Your task to perform on an android device: Go to Maps Image 0: 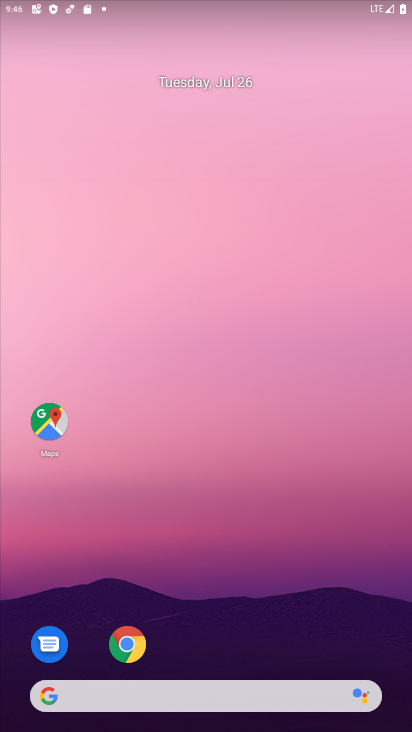
Step 0: click (50, 428)
Your task to perform on an android device: Go to Maps Image 1: 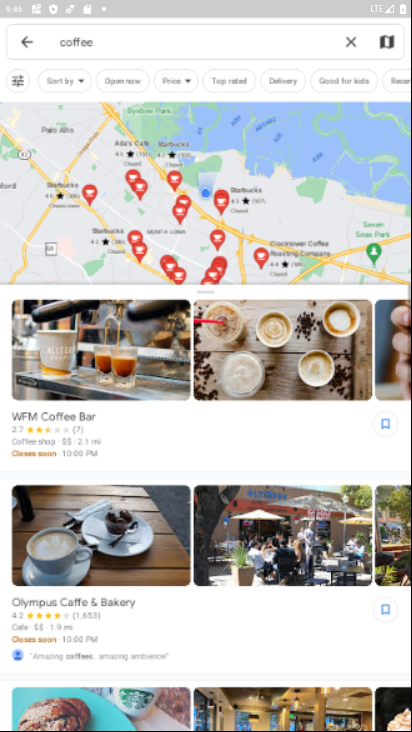
Step 1: click (47, 421)
Your task to perform on an android device: Go to Maps Image 2: 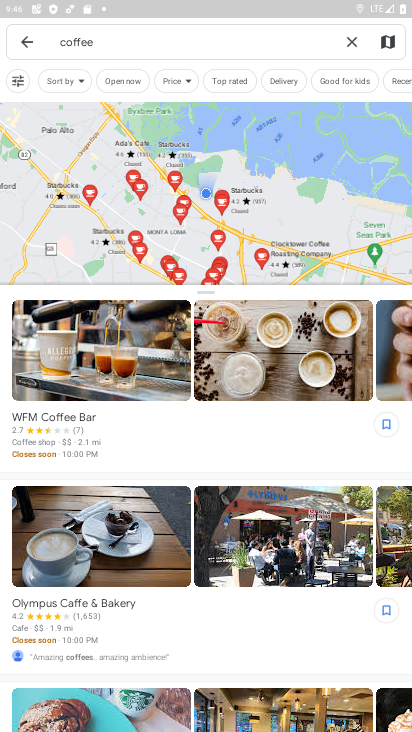
Step 2: task complete